Your task to perform on an android device: Go to Yahoo.com Image 0: 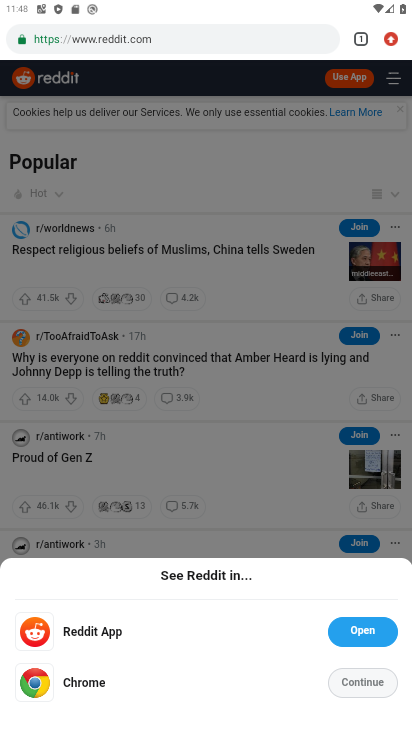
Step 0: click (125, 38)
Your task to perform on an android device: Go to Yahoo.com Image 1: 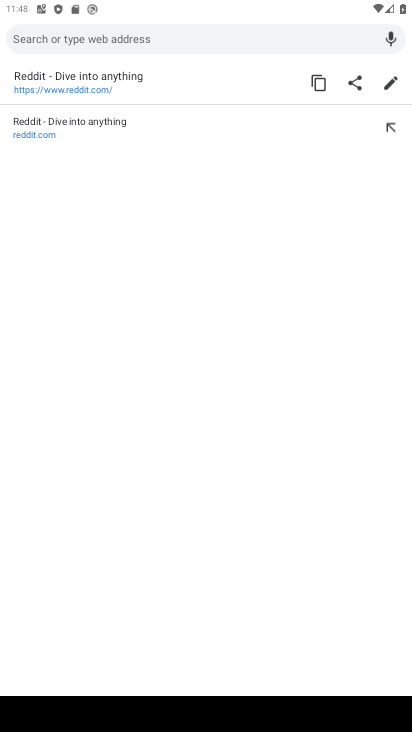
Step 1: type "yahoo.com"
Your task to perform on an android device: Go to Yahoo.com Image 2: 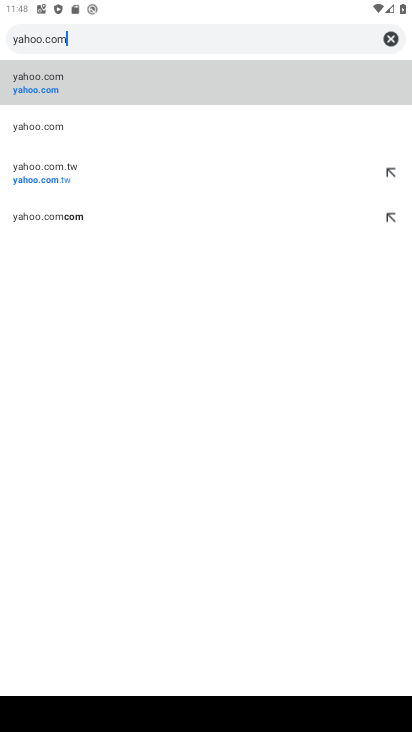
Step 2: click (40, 82)
Your task to perform on an android device: Go to Yahoo.com Image 3: 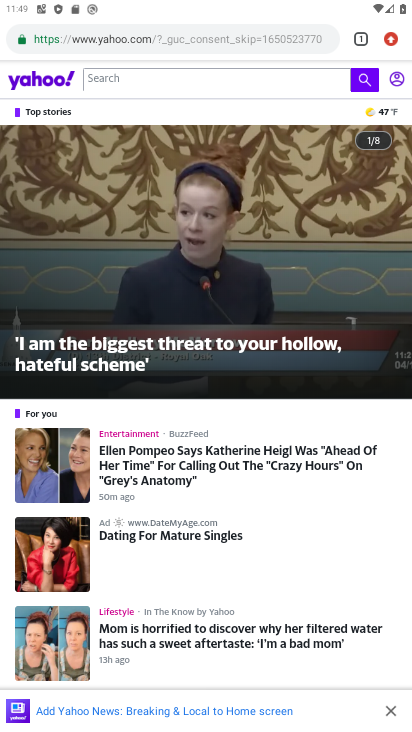
Step 3: task complete